Your task to perform on an android device: make emails show in primary in the gmail app Image 0: 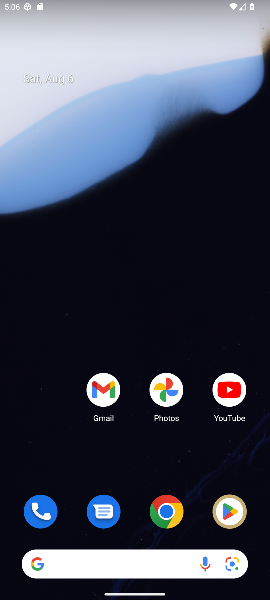
Step 0: click (106, 392)
Your task to perform on an android device: make emails show in primary in the gmail app Image 1: 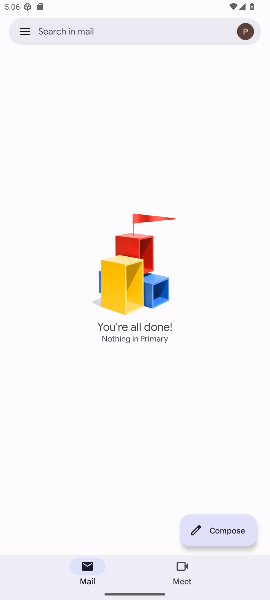
Step 1: click (25, 26)
Your task to perform on an android device: make emails show in primary in the gmail app Image 2: 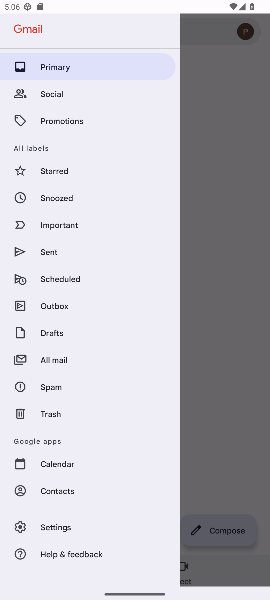
Step 2: click (56, 525)
Your task to perform on an android device: make emails show in primary in the gmail app Image 3: 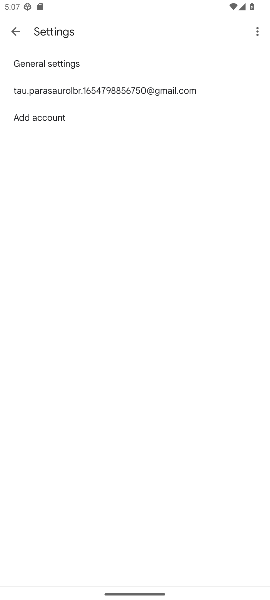
Step 3: click (94, 85)
Your task to perform on an android device: make emails show in primary in the gmail app Image 4: 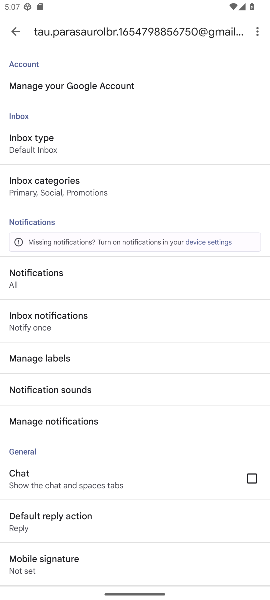
Step 4: click (55, 189)
Your task to perform on an android device: make emails show in primary in the gmail app Image 5: 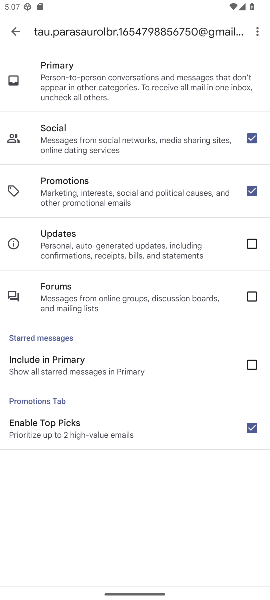
Step 5: click (251, 139)
Your task to perform on an android device: make emails show in primary in the gmail app Image 6: 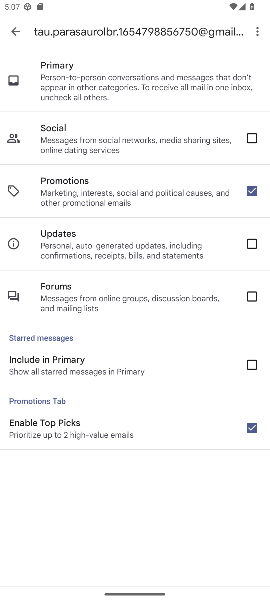
Step 6: click (255, 184)
Your task to perform on an android device: make emails show in primary in the gmail app Image 7: 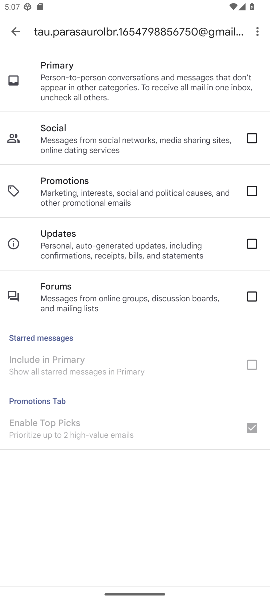
Step 7: task complete